Your task to perform on an android device: Open CNN.com Image 0: 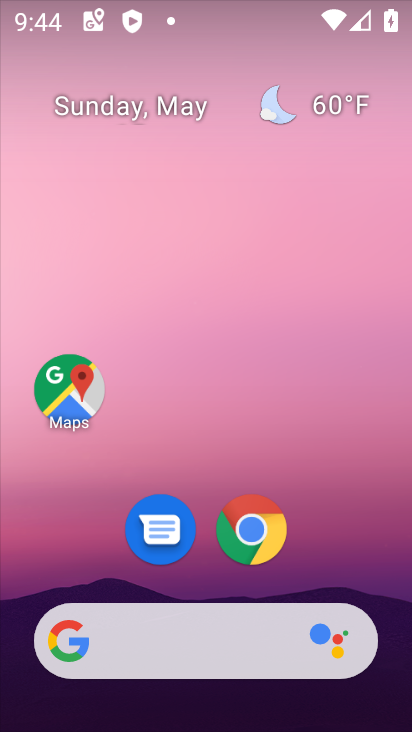
Step 0: click (367, 143)
Your task to perform on an android device: Open CNN.com Image 1: 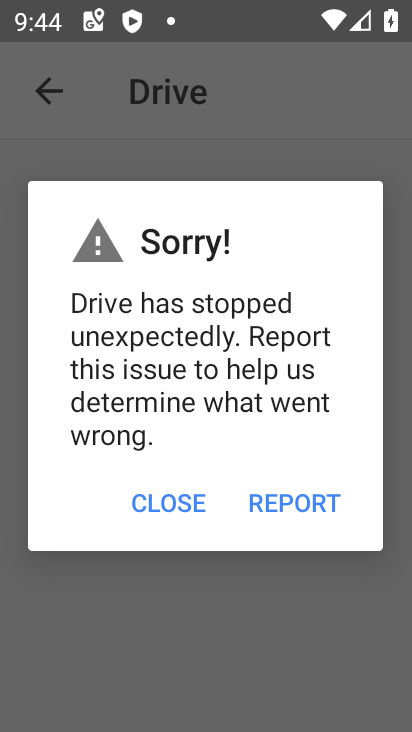
Step 1: press home button
Your task to perform on an android device: Open CNN.com Image 2: 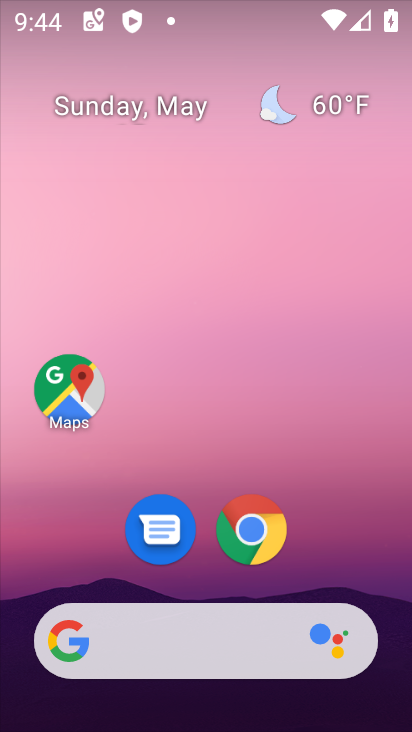
Step 2: drag from (335, 551) to (334, 116)
Your task to perform on an android device: Open CNN.com Image 3: 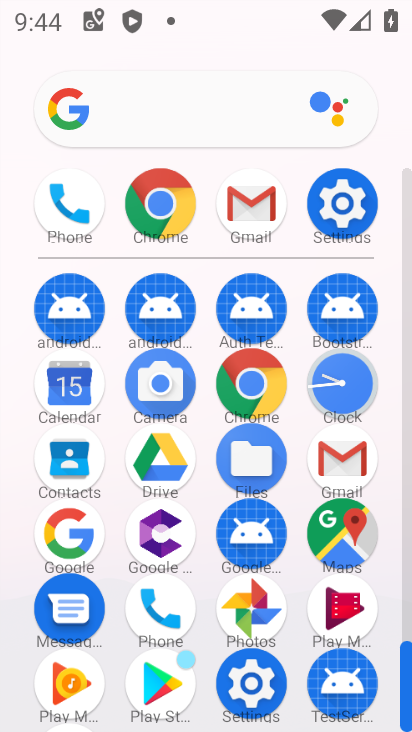
Step 3: click (245, 388)
Your task to perform on an android device: Open CNN.com Image 4: 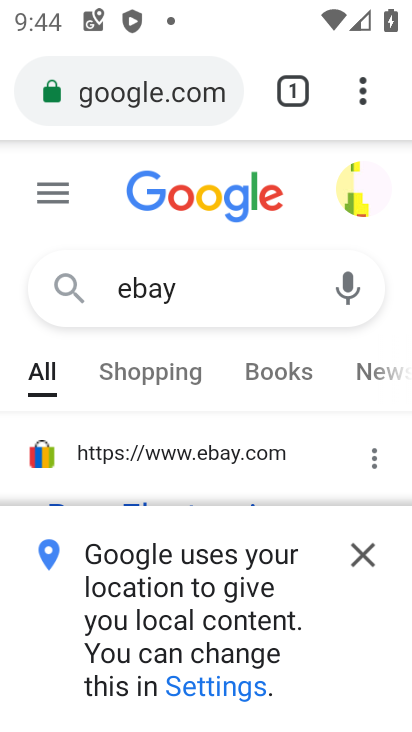
Step 4: click (167, 101)
Your task to perform on an android device: Open CNN.com Image 5: 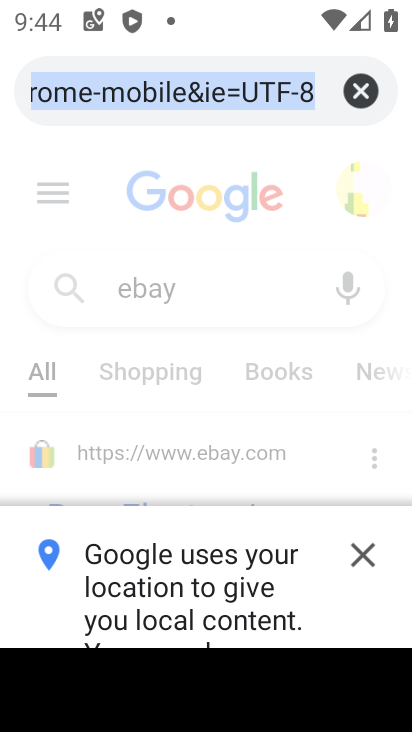
Step 5: click (361, 88)
Your task to perform on an android device: Open CNN.com Image 6: 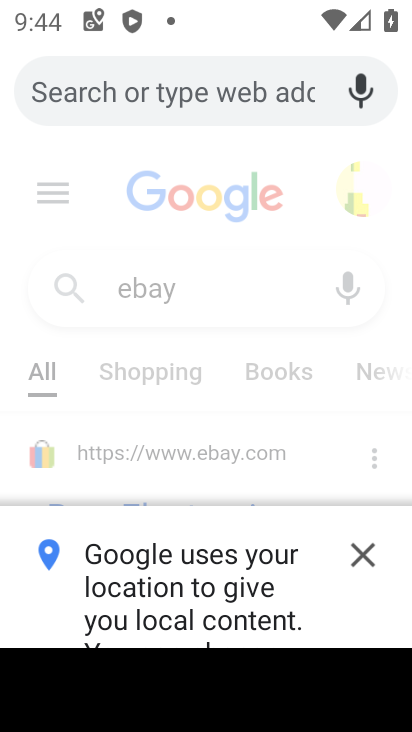
Step 6: click (157, 95)
Your task to perform on an android device: Open CNN.com Image 7: 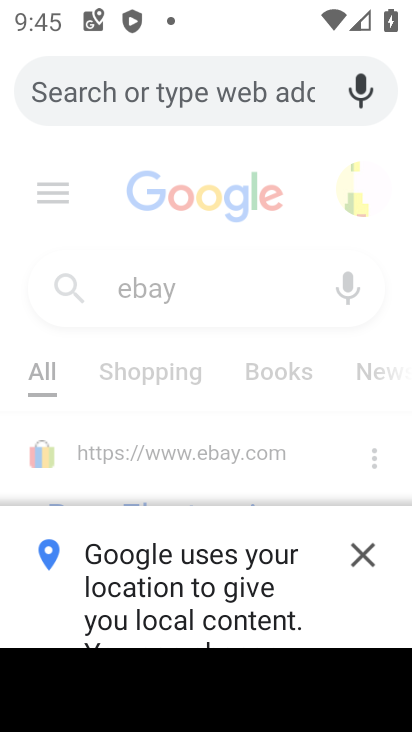
Step 7: type "cnn"
Your task to perform on an android device: Open CNN.com Image 8: 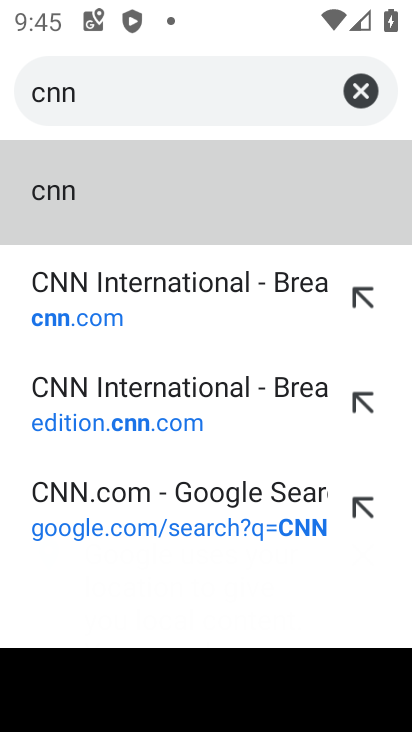
Step 8: click (87, 203)
Your task to perform on an android device: Open CNN.com Image 9: 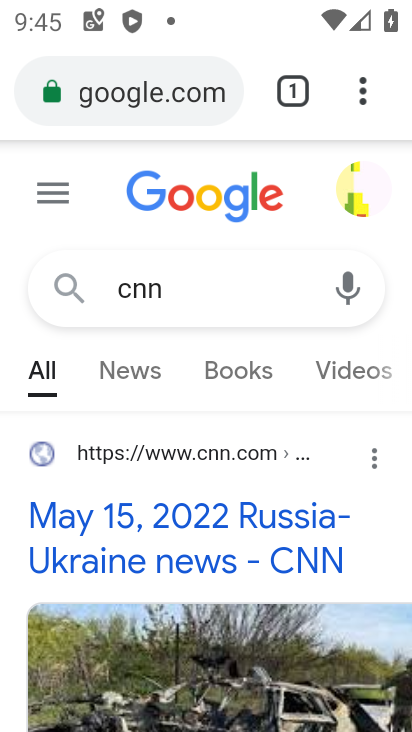
Step 9: task complete